Your task to perform on an android device: turn on airplane mode Image 0: 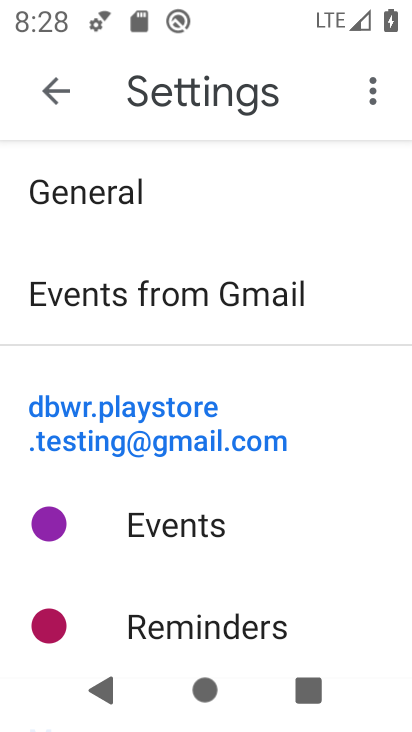
Step 0: press home button
Your task to perform on an android device: turn on airplane mode Image 1: 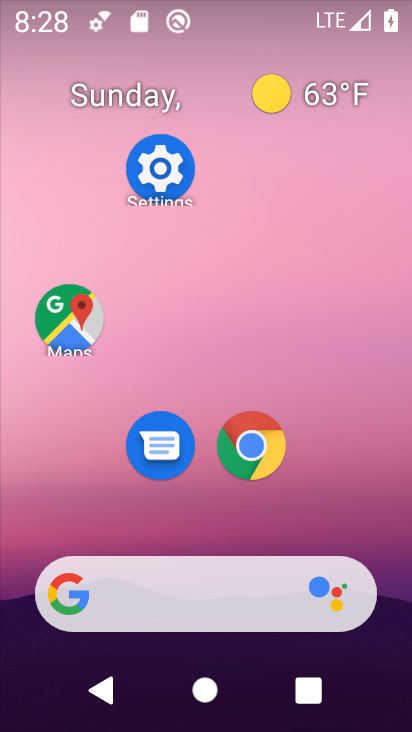
Step 1: drag from (221, 494) to (292, 39)
Your task to perform on an android device: turn on airplane mode Image 2: 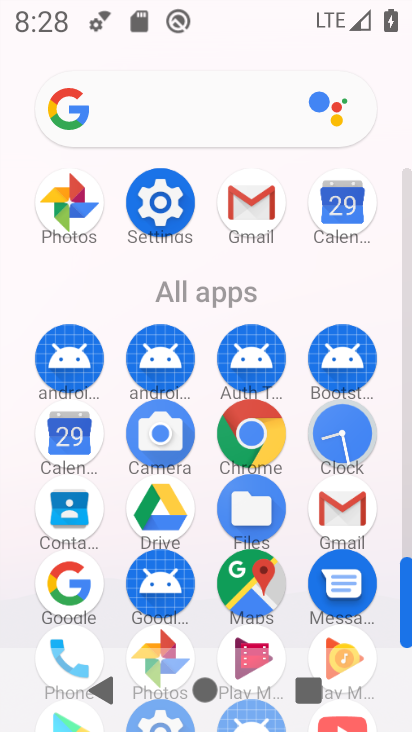
Step 2: click (146, 205)
Your task to perform on an android device: turn on airplane mode Image 3: 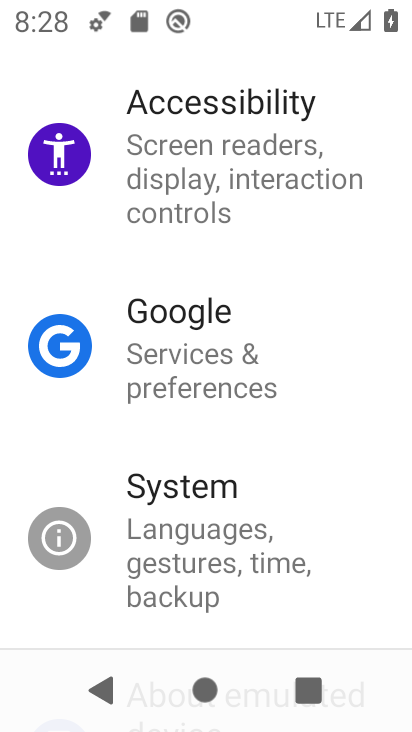
Step 3: drag from (261, 218) to (279, 665)
Your task to perform on an android device: turn on airplane mode Image 4: 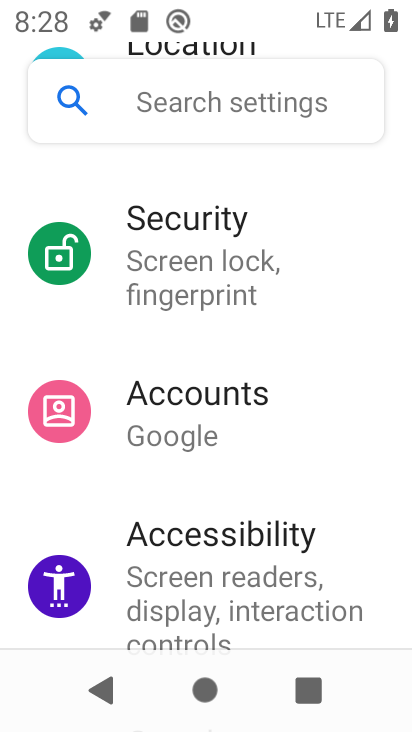
Step 4: drag from (287, 218) to (268, 665)
Your task to perform on an android device: turn on airplane mode Image 5: 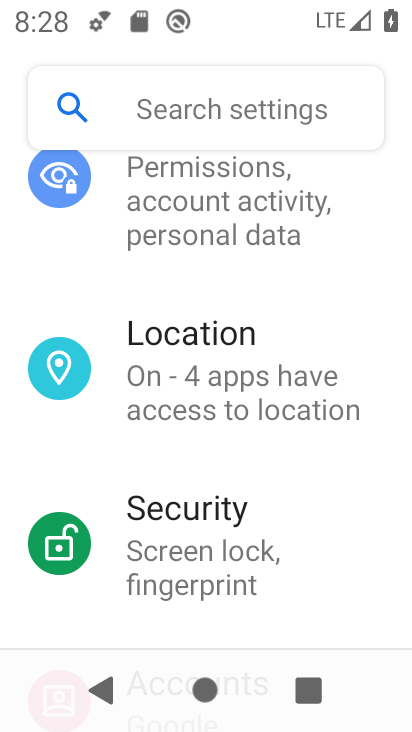
Step 5: drag from (241, 268) to (186, 610)
Your task to perform on an android device: turn on airplane mode Image 6: 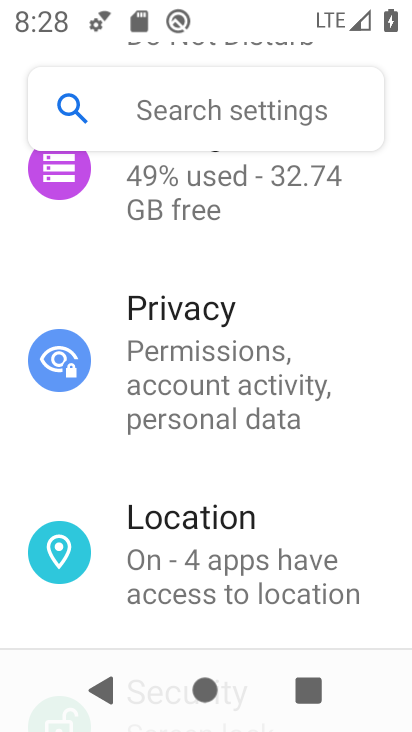
Step 6: drag from (255, 269) to (228, 563)
Your task to perform on an android device: turn on airplane mode Image 7: 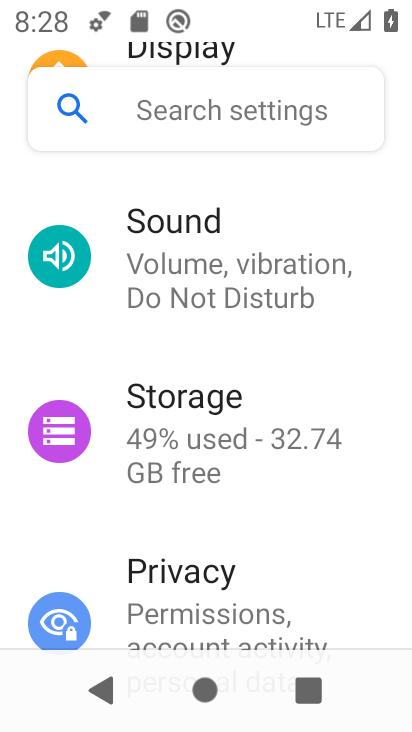
Step 7: drag from (251, 275) to (240, 643)
Your task to perform on an android device: turn on airplane mode Image 8: 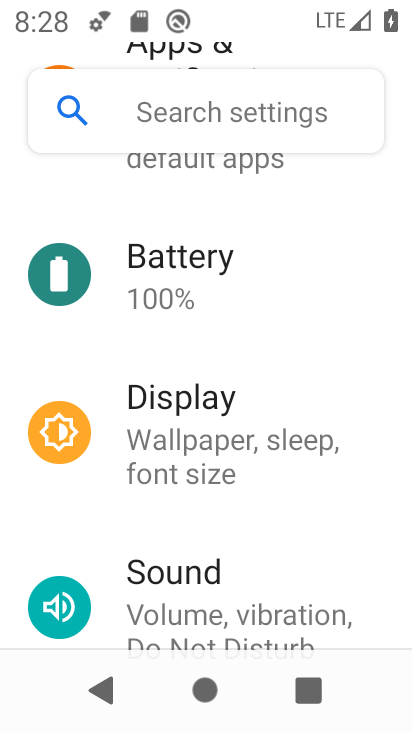
Step 8: drag from (235, 207) to (187, 676)
Your task to perform on an android device: turn on airplane mode Image 9: 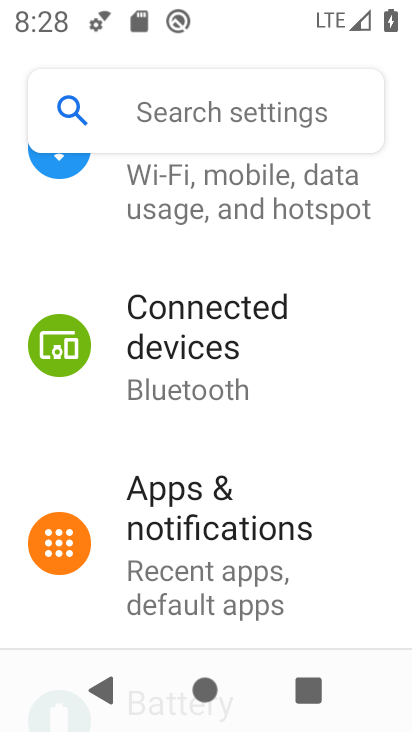
Step 9: click (293, 207)
Your task to perform on an android device: turn on airplane mode Image 10: 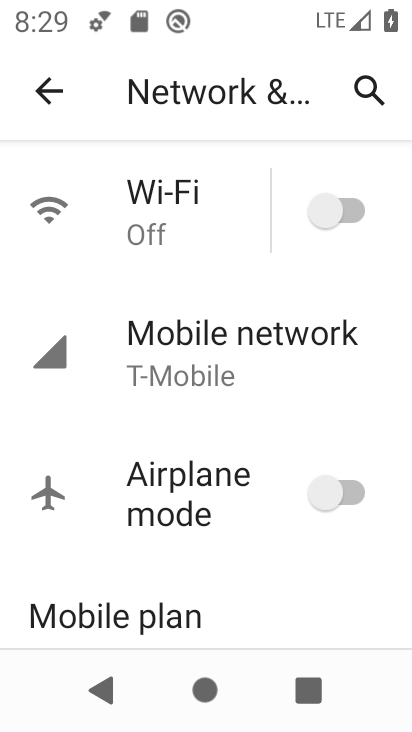
Step 10: click (334, 481)
Your task to perform on an android device: turn on airplane mode Image 11: 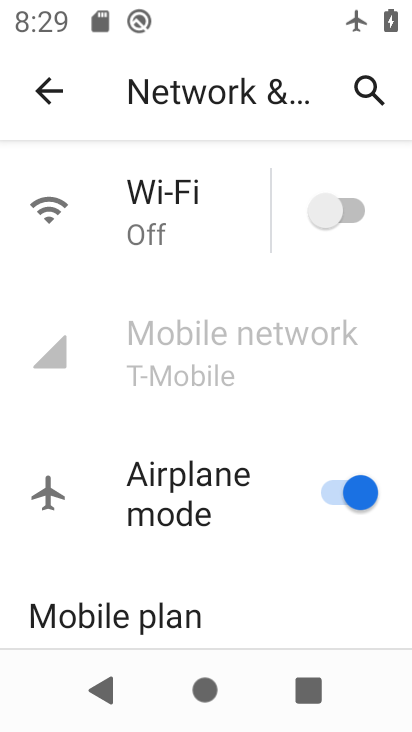
Step 11: task complete